Your task to perform on an android device: Go to accessibility settings Image 0: 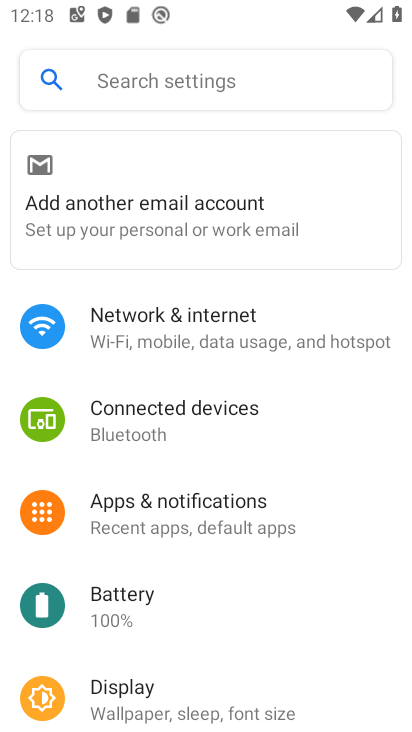
Step 0: press home button
Your task to perform on an android device: Go to accessibility settings Image 1: 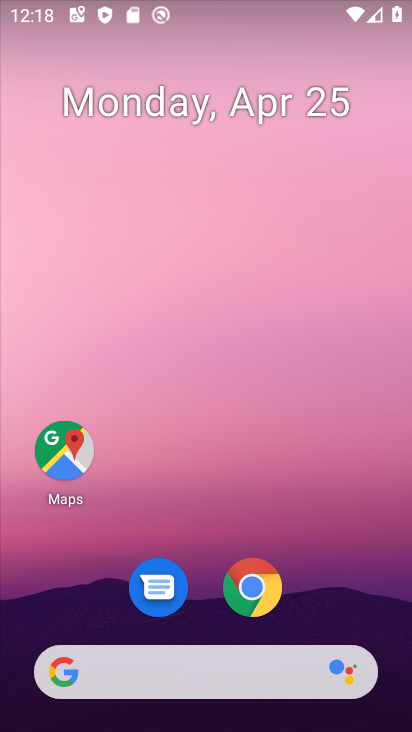
Step 1: drag from (276, 535) to (225, 7)
Your task to perform on an android device: Go to accessibility settings Image 2: 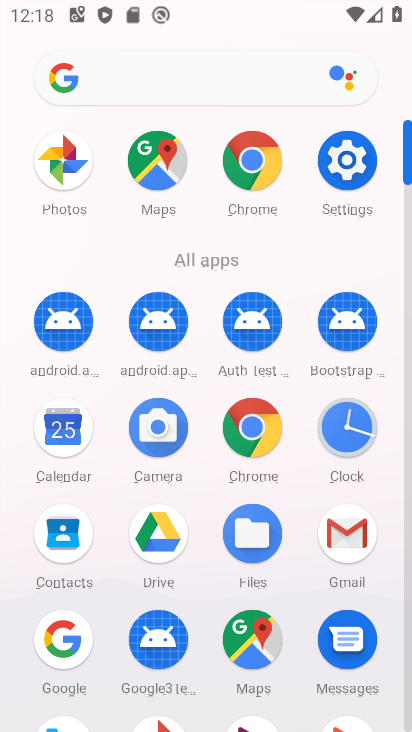
Step 2: click (258, 429)
Your task to perform on an android device: Go to accessibility settings Image 3: 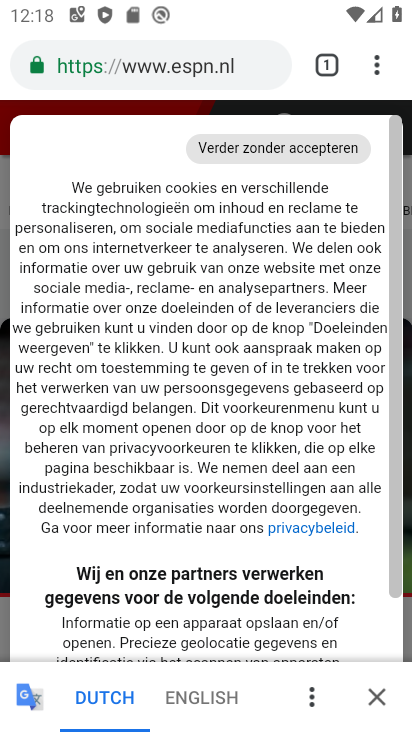
Step 3: drag from (379, 79) to (184, 641)
Your task to perform on an android device: Go to accessibility settings Image 4: 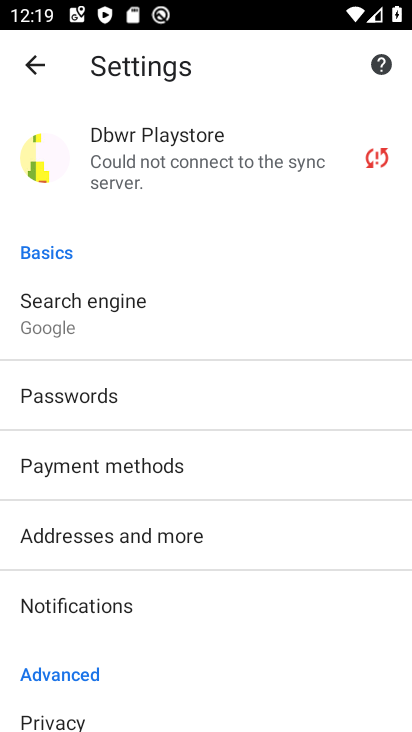
Step 4: drag from (190, 698) to (198, 197)
Your task to perform on an android device: Go to accessibility settings Image 5: 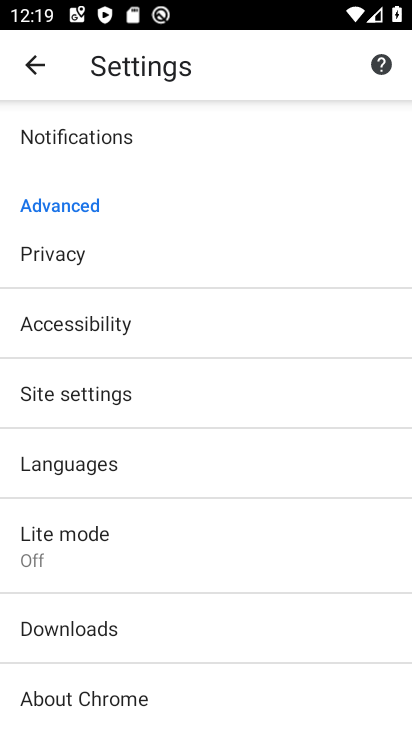
Step 5: click (179, 324)
Your task to perform on an android device: Go to accessibility settings Image 6: 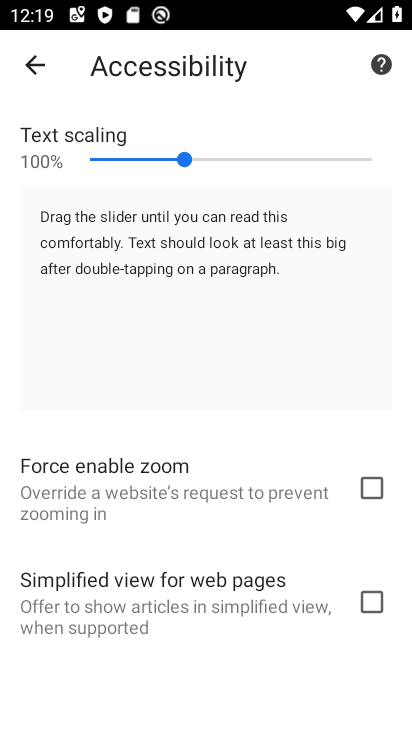
Step 6: task complete